Your task to perform on an android device: toggle translation in the chrome app Image 0: 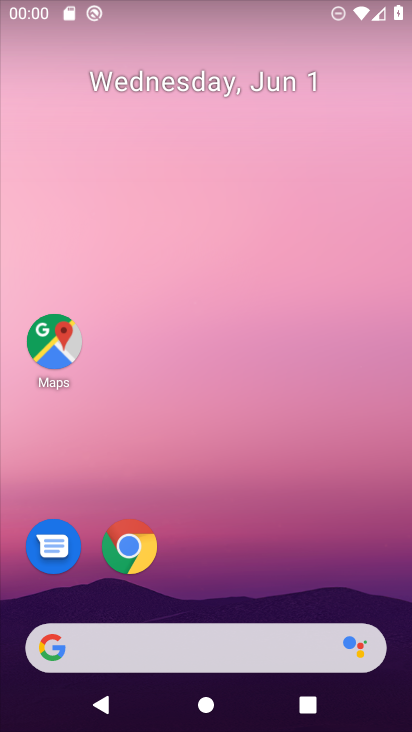
Step 0: click (132, 538)
Your task to perform on an android device: toggle translation in the chrome app Image 1: 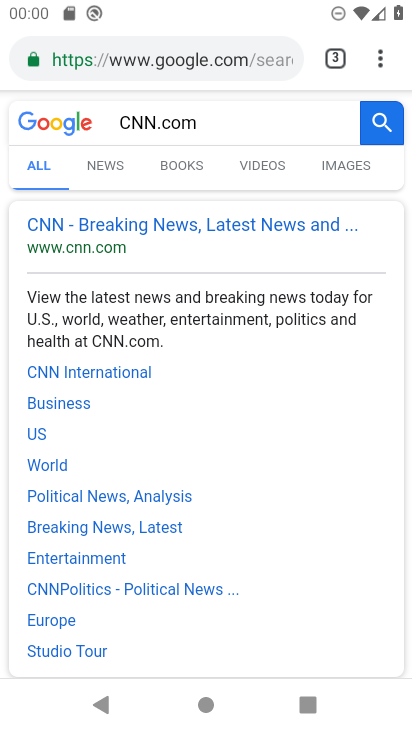
Step 1: click (381, 50)
Your task to perform on an android device: toggle translation in the chrome app Image 2: 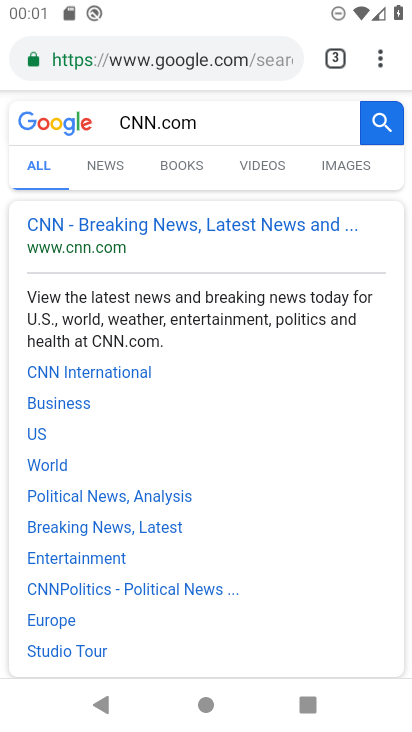
Step 2: click (381, 50)
Your task to perform on an android device: toggle translation in the chrome app Image 3: 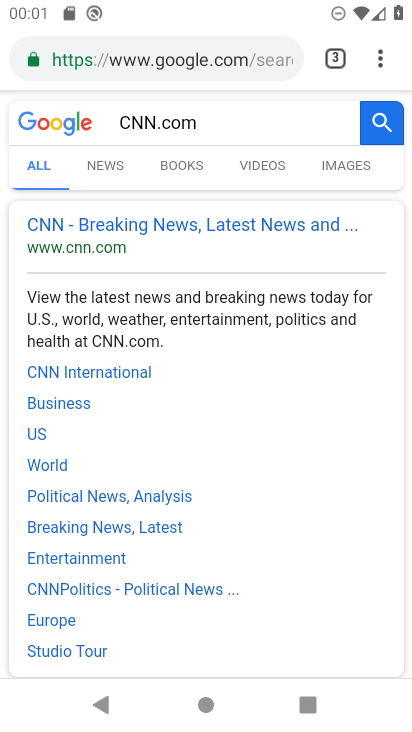
Step 3: click (380, 55)
Your task to perform on an android device: toggle translation in the chrome app Image 4: 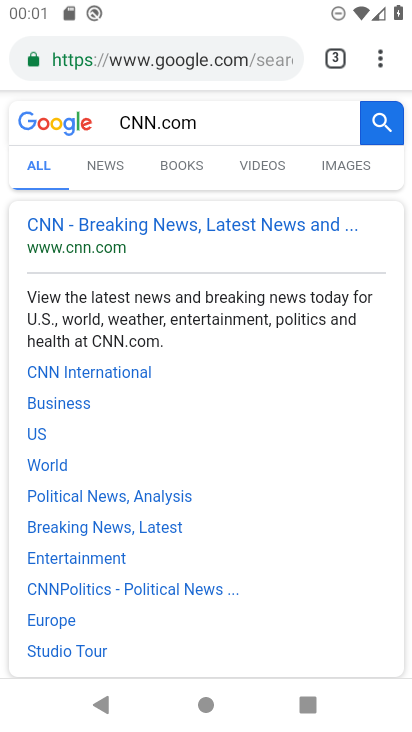
Step 4: click (380, 62)
Your task to perform on an android device: toggle translation in the chrome app Image 5: 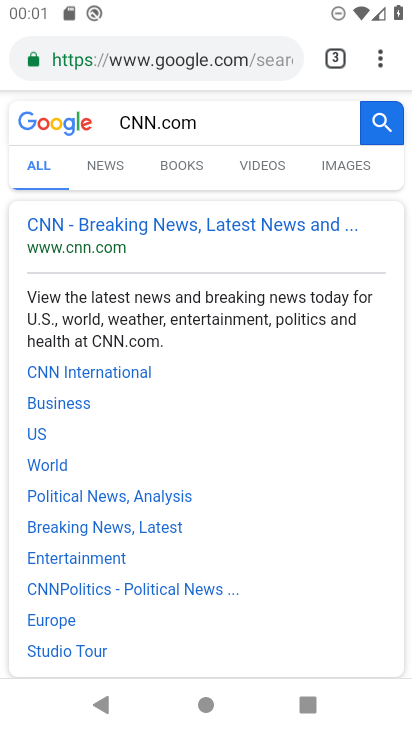
Step 5: click (381, 59)
Your task to perform on an android device: toggle translation in the chrome app Image 6: 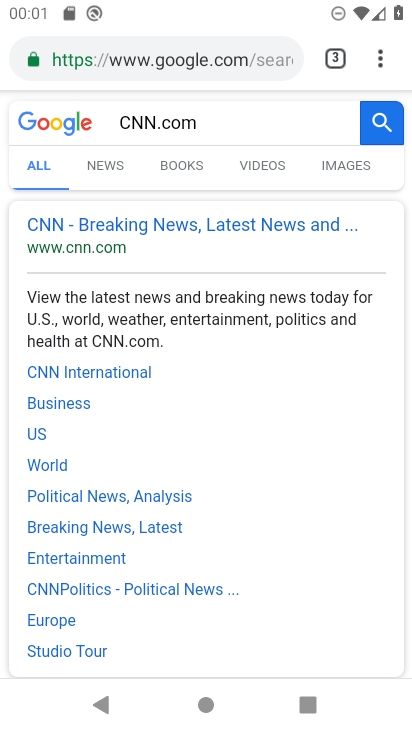
Step 6: click (381, 59)
Your task to perform on an android device: toggle translation in the chrome app Image 7: 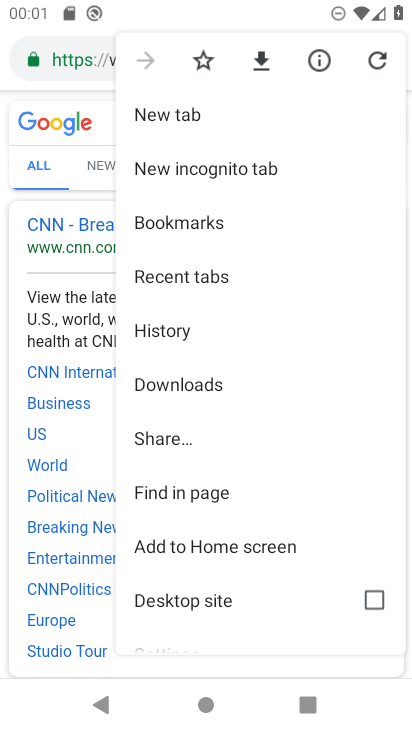
Step 7: drag from (268, 595) to (208, 337)
Your task to perform on an android device: toggle translation in the chrome app Image 8: 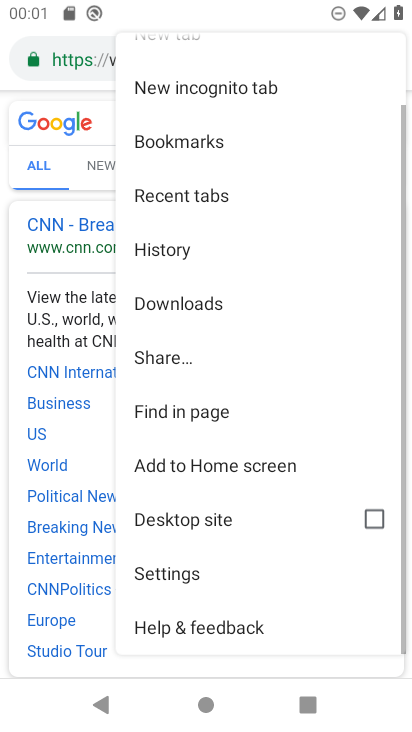
Step 8: click (197, 578)
Your task to perform on an android device: toggle translation in the chrome app Image 9: 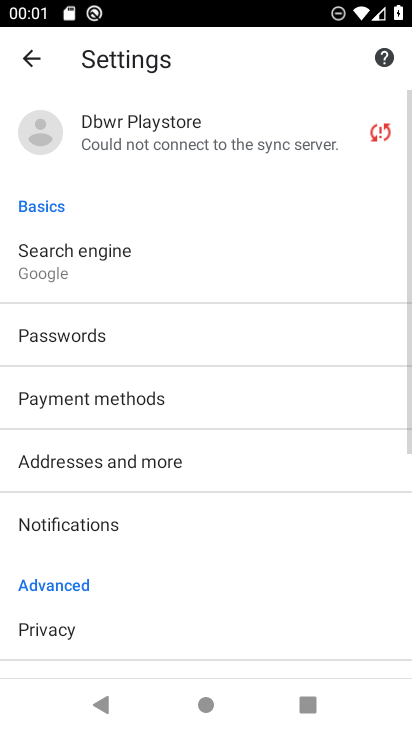
Step 9: drag from (224, 607) to (211, 246)
Your task to perform on an android device: toggle translation in the chrome app Image 10: 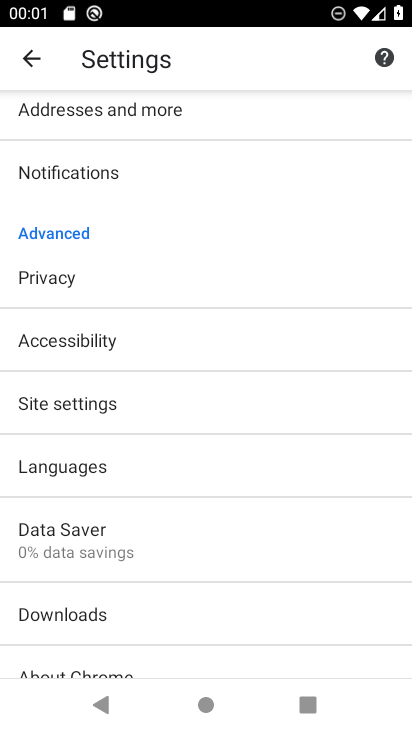
Step 10: click (201, 469)
Your task to perform on an android device: toggle translation in the chrome app Image 11: 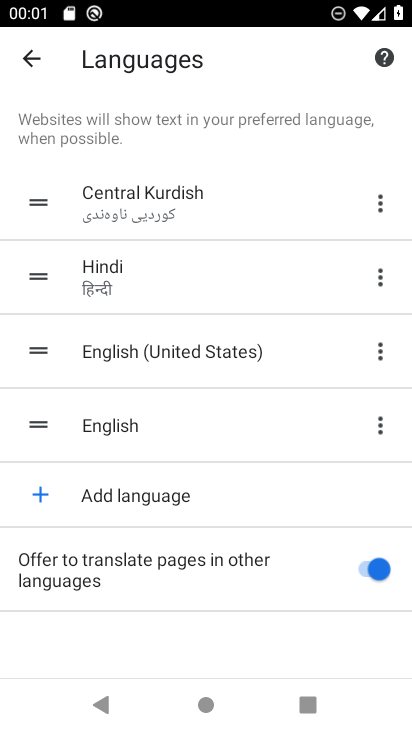
Step 11: click (358, 566)
Your task to perform on an android device: toggle translation in the chrome app Image 12: 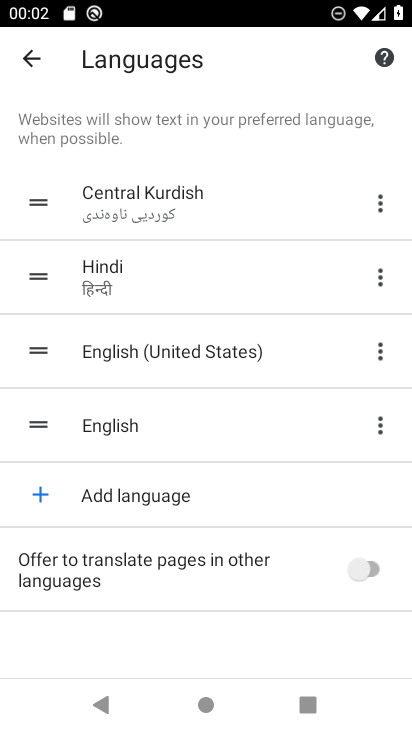
Step 12: click (332, 649)
Your task to perform on an android device: toggle translation in the chrome app Image 13: 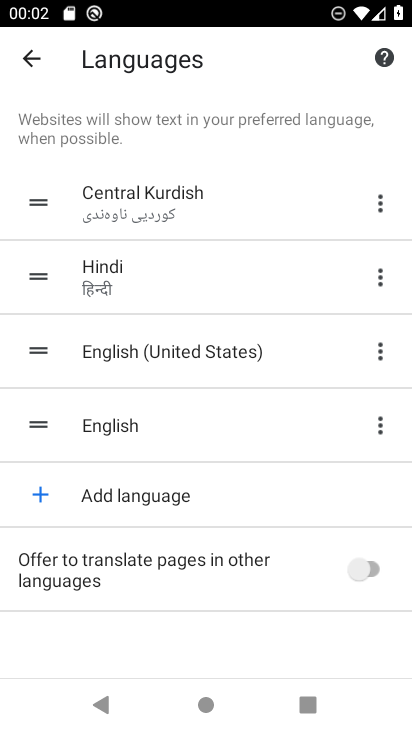
Step 13: task complete